Your task to perform on an android device: open app "Yahoo Mail" (install if not already installed) and go to login screen Image 0: 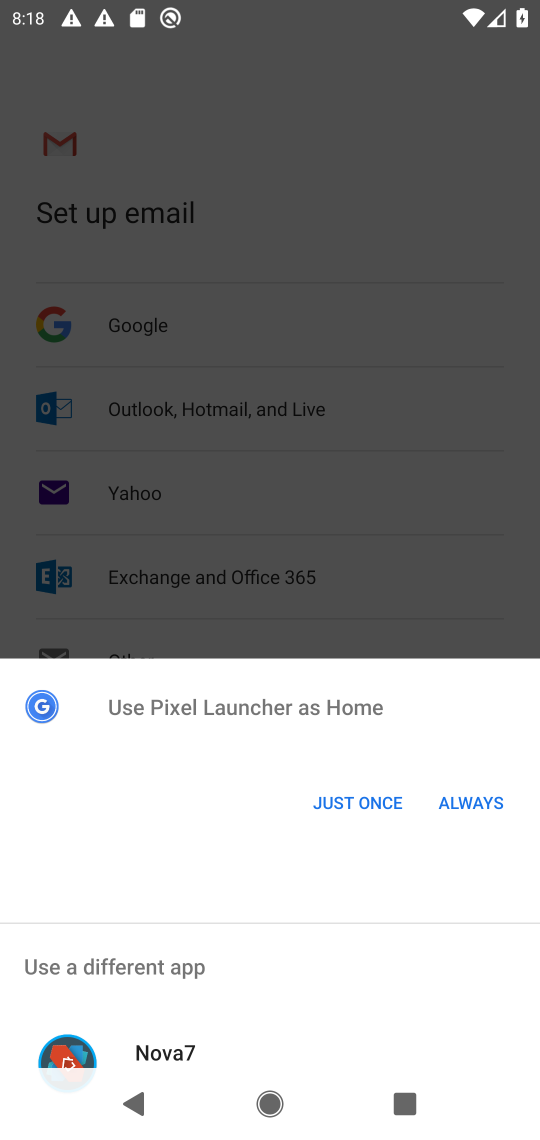
Step 0: click (340, 806)
Your task to perform on an android device: open app "Yahoo Mail" (install if not already installed) and go to login screen Image 1: 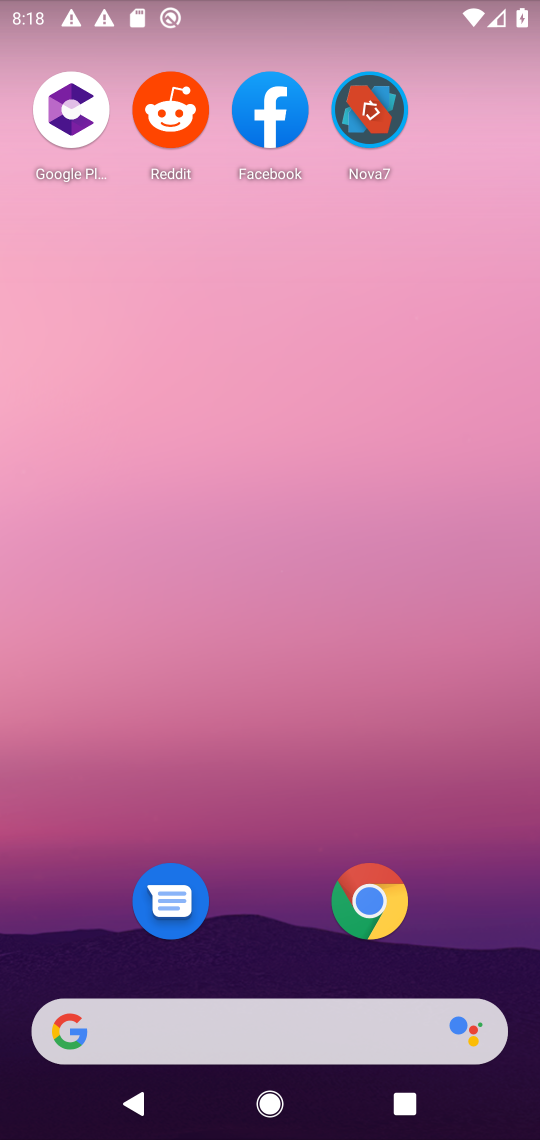
Step 1: drag from (227, 1076) to (427, 6)
Your task to perform on an android device: open app "Yahoo Mail" (install if not already installed) and go to login screen Image 2: 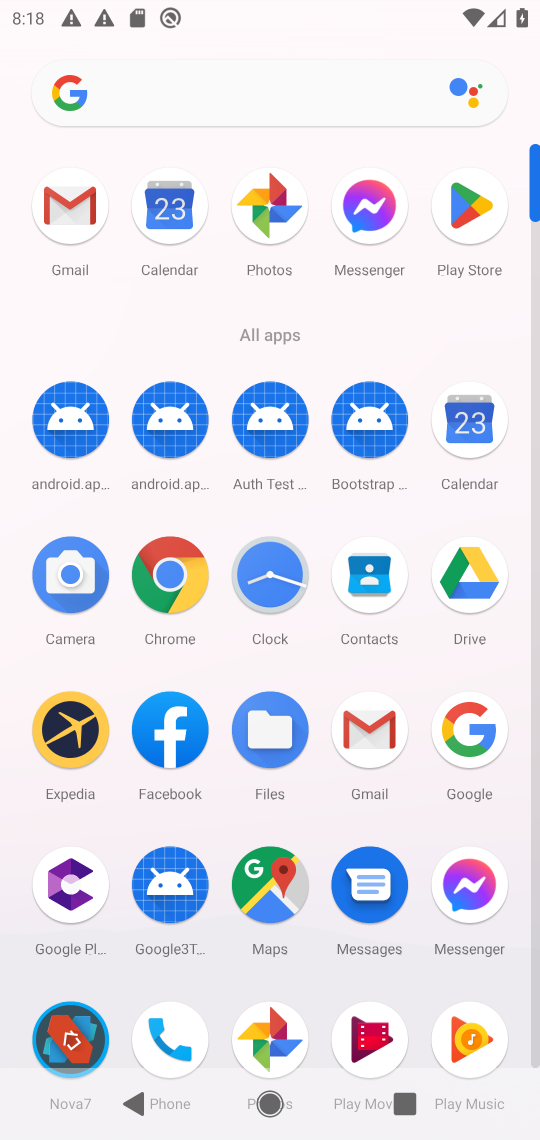
Step 2: click (473, 209)
Your task to perform on an android device: open app "Yahoo Mail" (install if not already installed) and go to login screen Image 3: 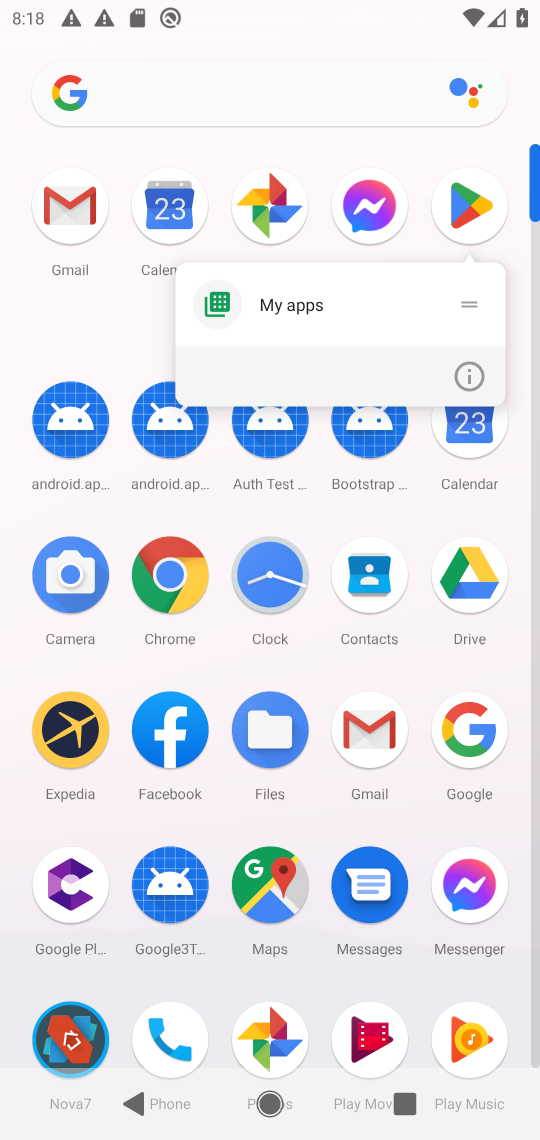
Step 3: click (473, 208)
Your task to perform on an android device: open app "Yahoo Mail" (install if not already installed) and go to login screen Image 4: 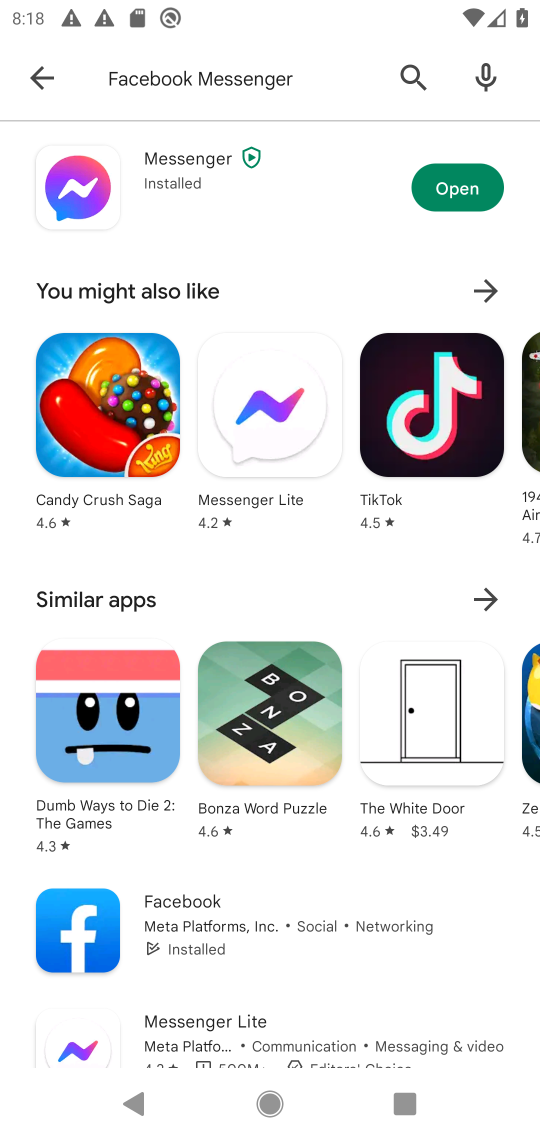
Step 4: press back button
Your task to perform on an android device: open app "Yahoo Mail" (install if not already installed) and go to login screen Image 5: 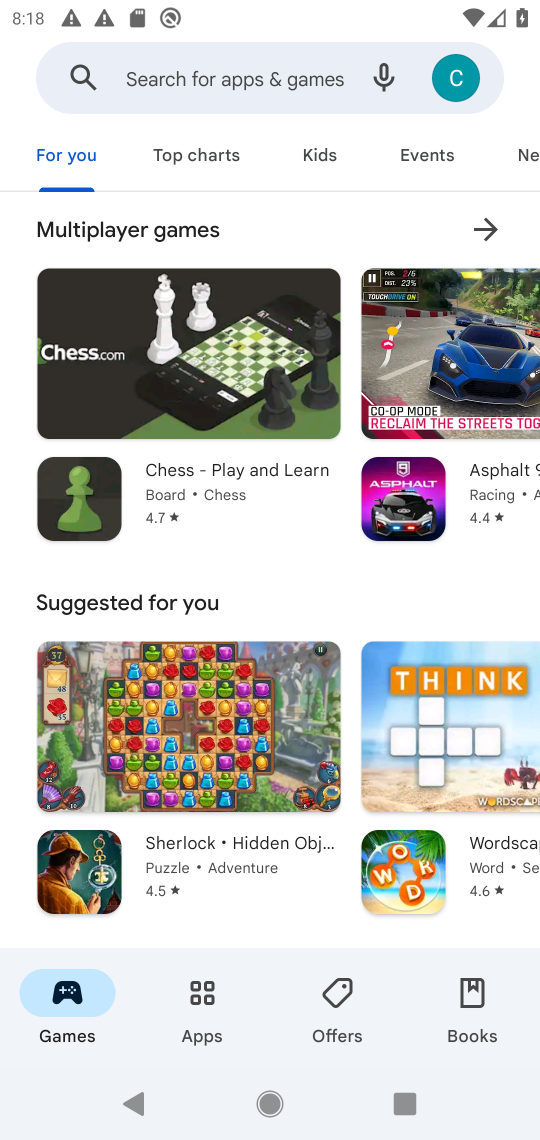
Step 5: click (193, 80)
Your task to perform on an android device: open app "Yahoo Mail" (install if not already installed) and go to login screen Image 6: 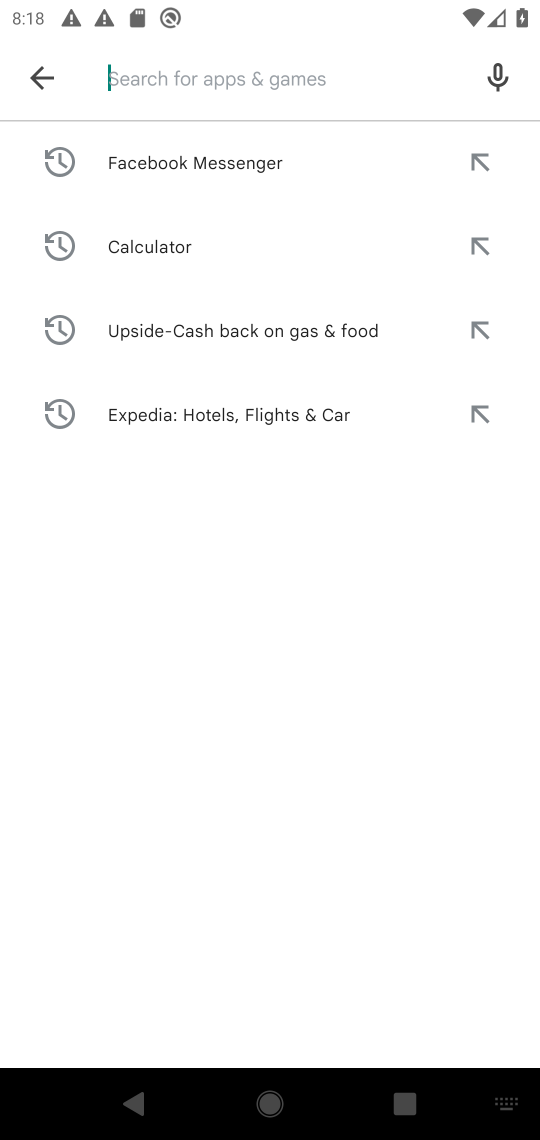
Step 6: type "Yahoo Mail"
Your task to perform on an android device: open app "Yahoo Mail" (install if not already installed) and go to login screen Image 7: 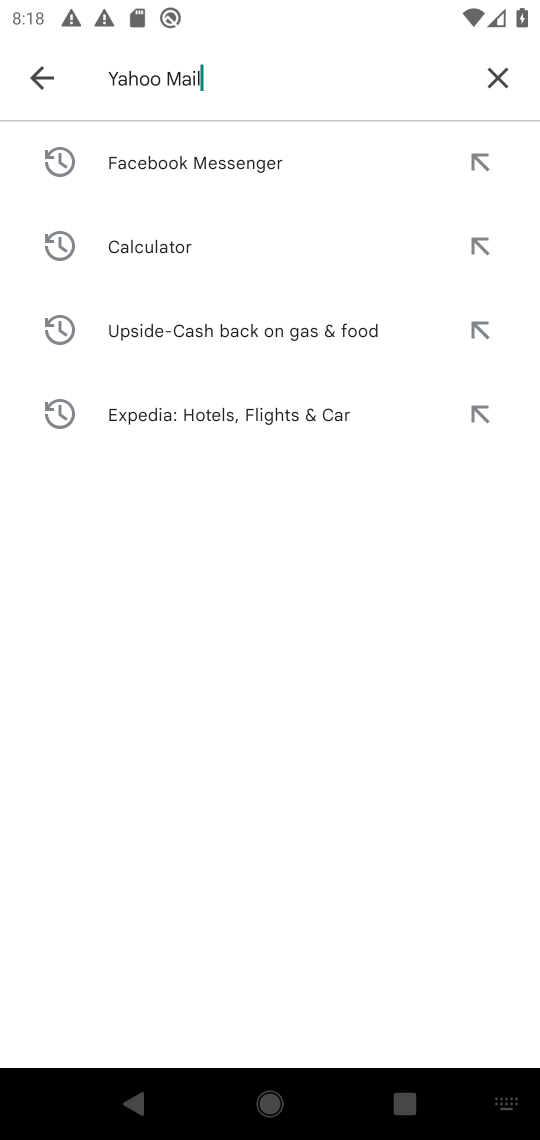
Step 7: press enter
Your task to perform on an android device: open app "Yahoo Mail" (install if not already installed) and go to login screen Image 8: 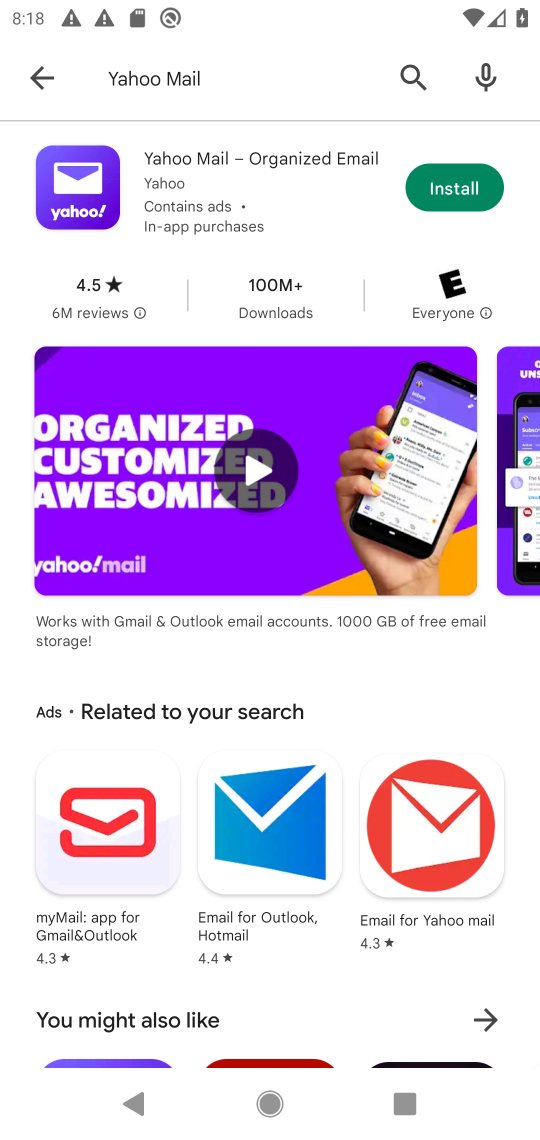
Step 8: click (469, 167)
Your task to perform on an android device: open app "Yahoo Mail" (install if not already installed) and go to login screen Image 9: 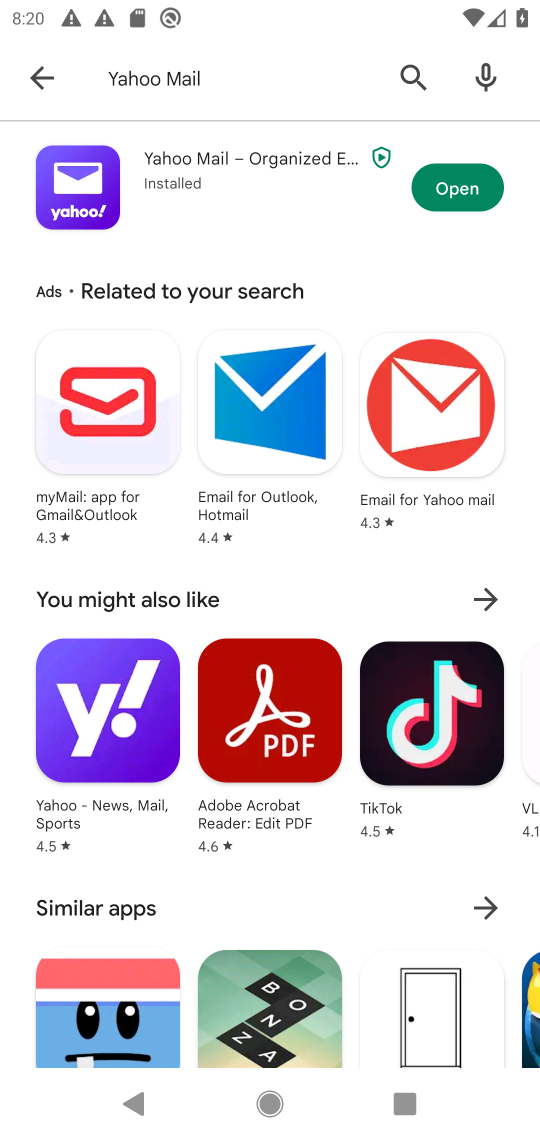
Step 9: click (471, 196)
Your task to perform on an android device: open app "Yahoo Mail" (install if not already installed) and go to login screen Image 10: 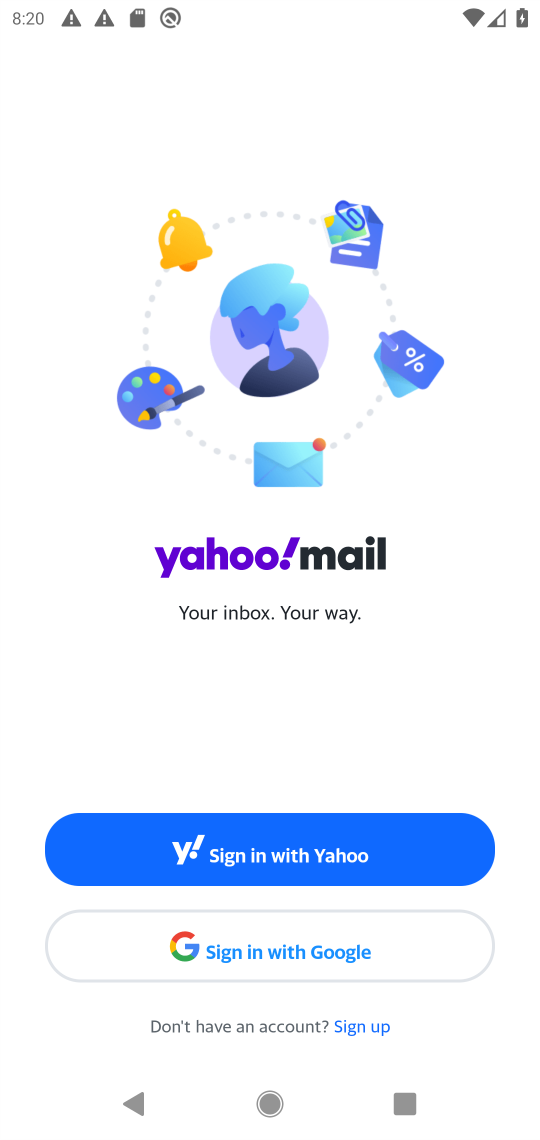
Step 10: task complete